Your task to perform on an android device: Search for seafood restaurants on Google Maps Image 0: 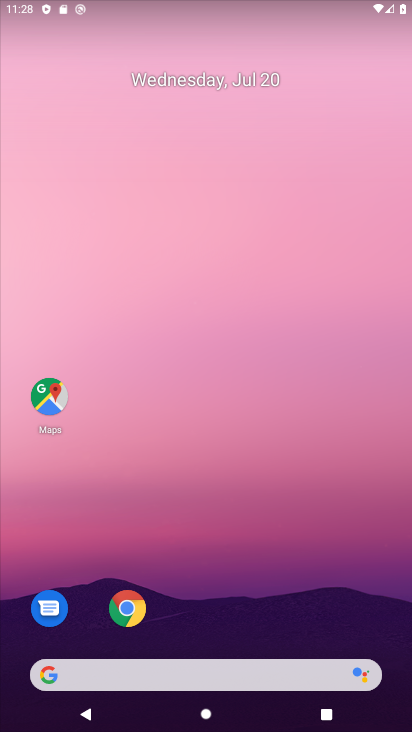
Step 0: drag from (390, 625) to (170, 17)
Your task to perform on an android device: Search for seafood restaurants on Google Maps Image 1: 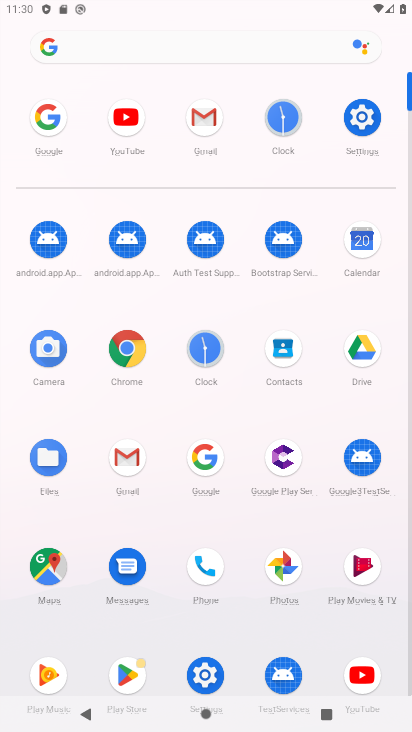
Step 1: click (48, 576)
Your task to perform on an android device: Search for seafood restaurants on Google Maps Image 2: 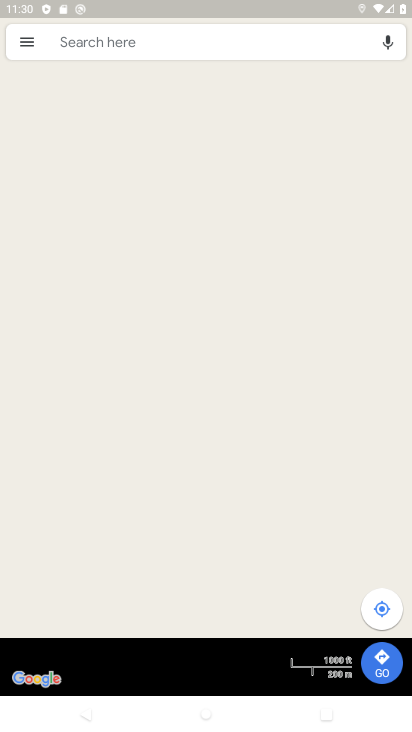
Step 2: click (137, 44)
Your task to perform on an android device: Search for seafood restaurants on Google Maps Image 3: 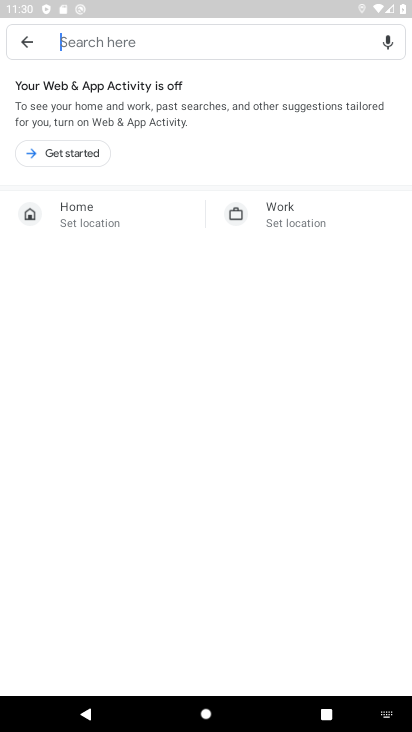
Step 3: click (69, 155)
Your task to perform on an android device: Search for seafood restaurants on Google Maps Image 4: 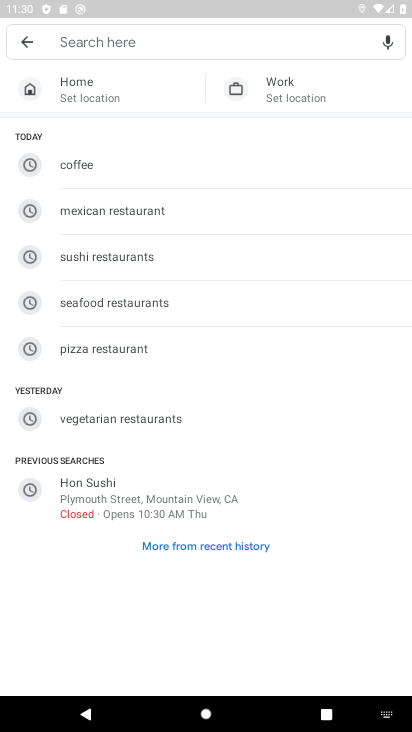
Step 4: click (153, 258)
Your task to perform on an android device: Search for seafood restaurants on Google Maps Image 5: 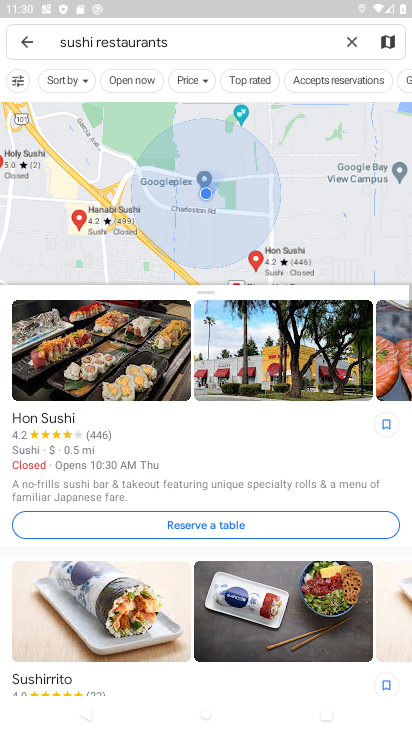
Step 5: task complete